Your task to perform on an android device: change notification settings in the gmail app Image 0: 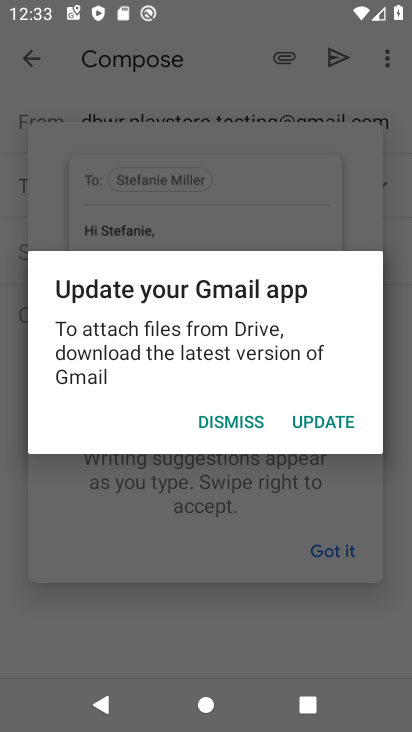
Step 0: press home button
Your task to perform on an android device: change notification settings in the gmail app Image 1: 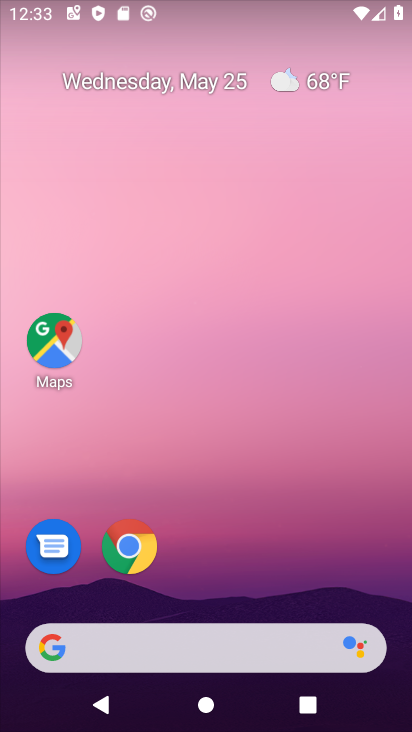
Step 1: drag from (237, 566) to (239, 247)
Your task to perform on an android device: change notification settings in the gmail app Image 2: 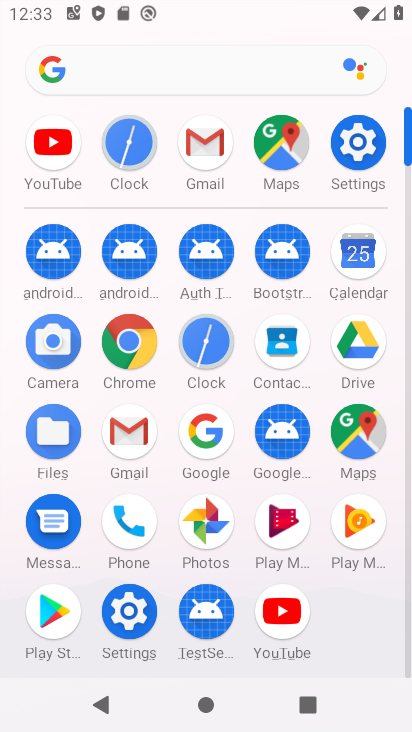
Step 2: click (193, 179)
Your task to perform on an android device: change notification settings in the gmail app Image 3: 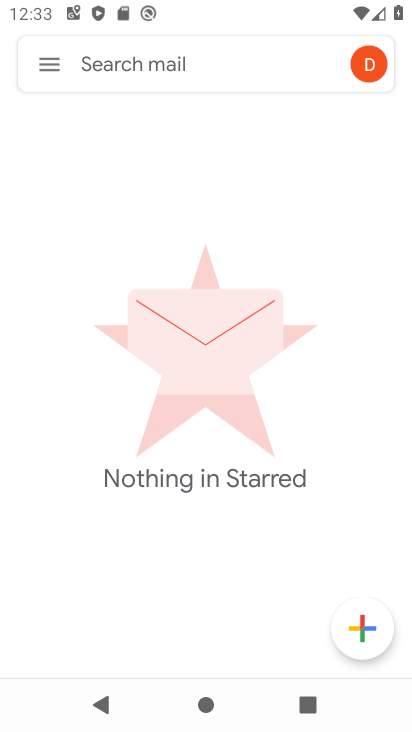
Step 3: click (59, 75)
Your task to perform on an android device: change notification settings in the gmail app Image 4: 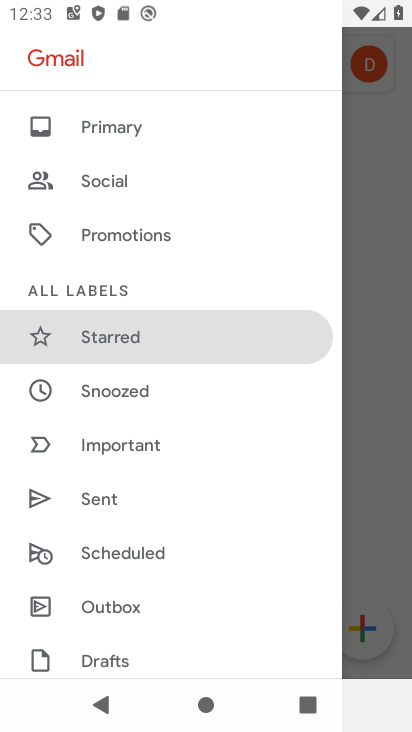
Step 4: drag from (162, 628) to (169, 229)
Your task to perform on an android device: change notification settings in the gmail app Image 5: 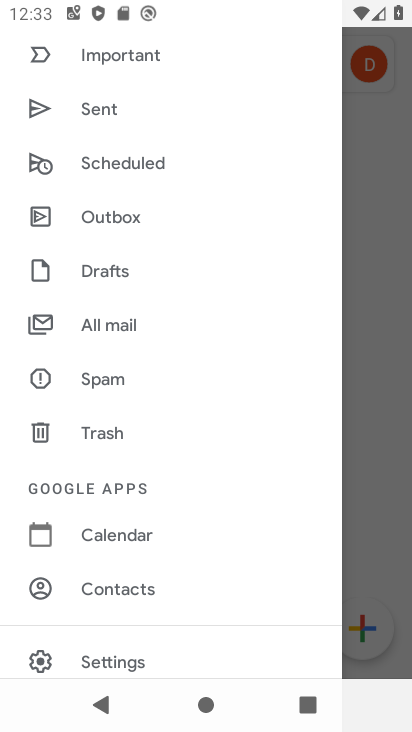
Step 5: click (173, 668)
Your task to perform on an android device: change notification settings in the gmail app Image 6: 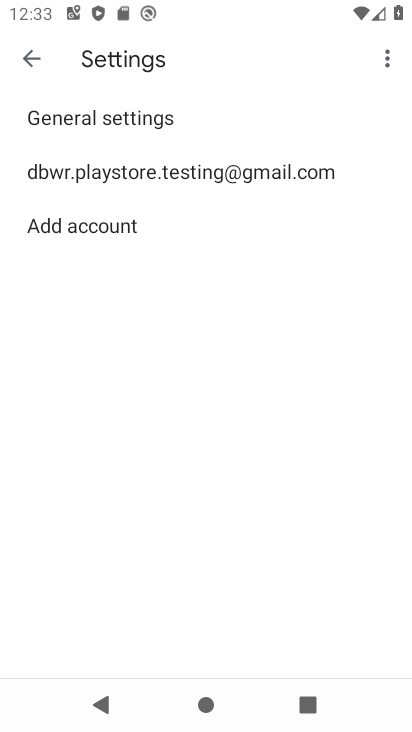
Step 6: click (171, 189)
Your task to perform on an android device: change notification settings in the gmail app Image 7: 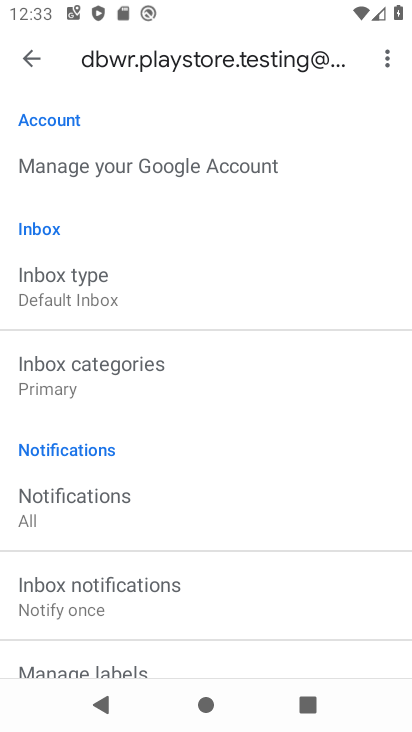
Step 7: task complete